Your task to perform on an android device: turn off sleep mode Image 0: 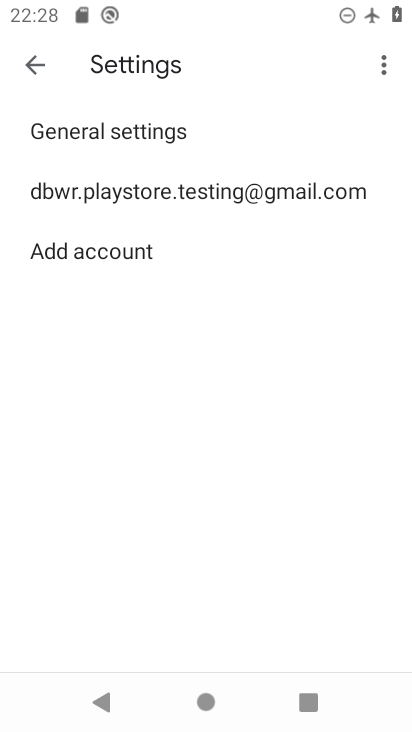
Step 0: press home button
Your task to perform on an android device: turn off sleep mode Image 1: 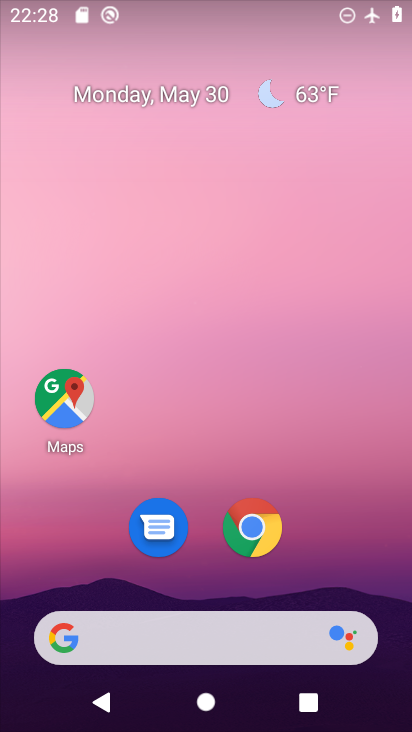
Step 1: drag from (338, 572) to (264, 167)
Your task to perform on an android device: turn off sleep mode Image 2: 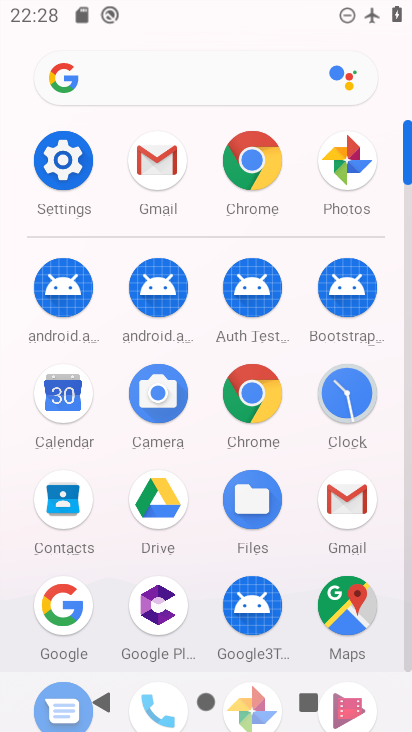
Step 2: click (80, 166)
Your task to perform on an android device: turn off sleep mode Image 3: 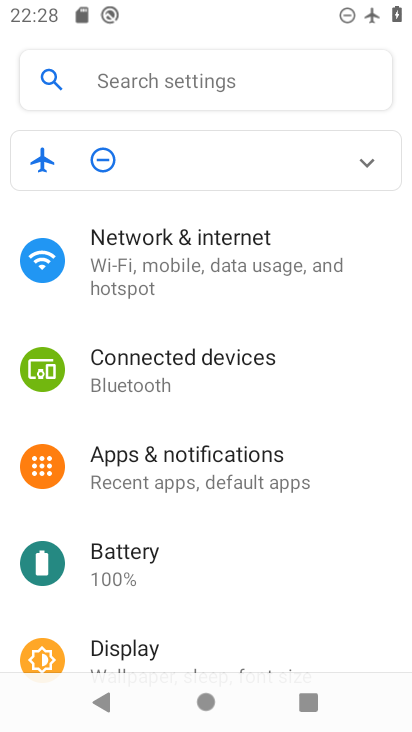
Step 3: task complete